Your task to perform on an android device: Open sound settings Image 0: 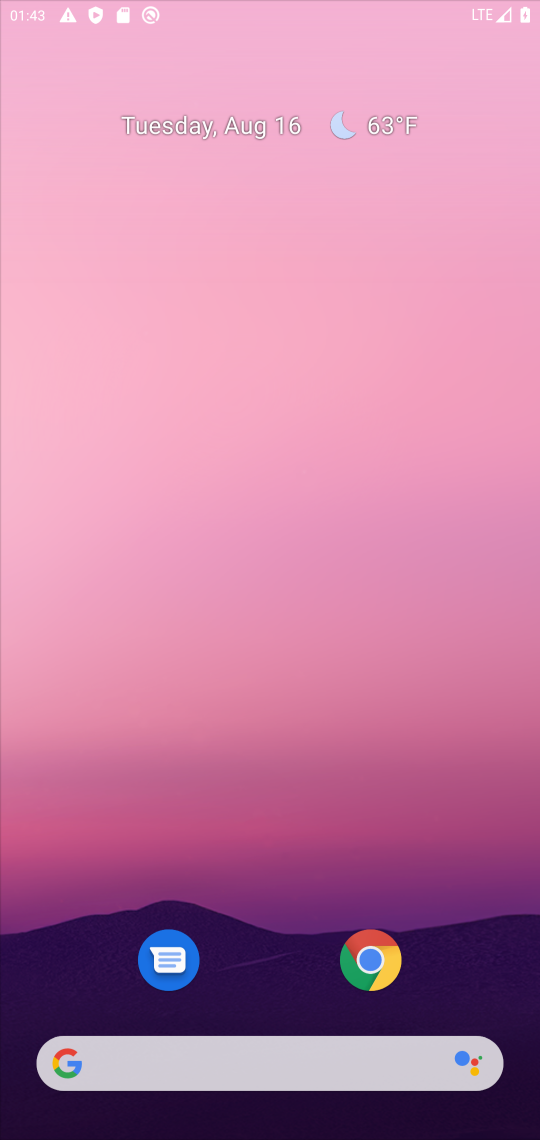
Step 0: press home button
Your task to perform on an android device: Open sound settings Image 1: 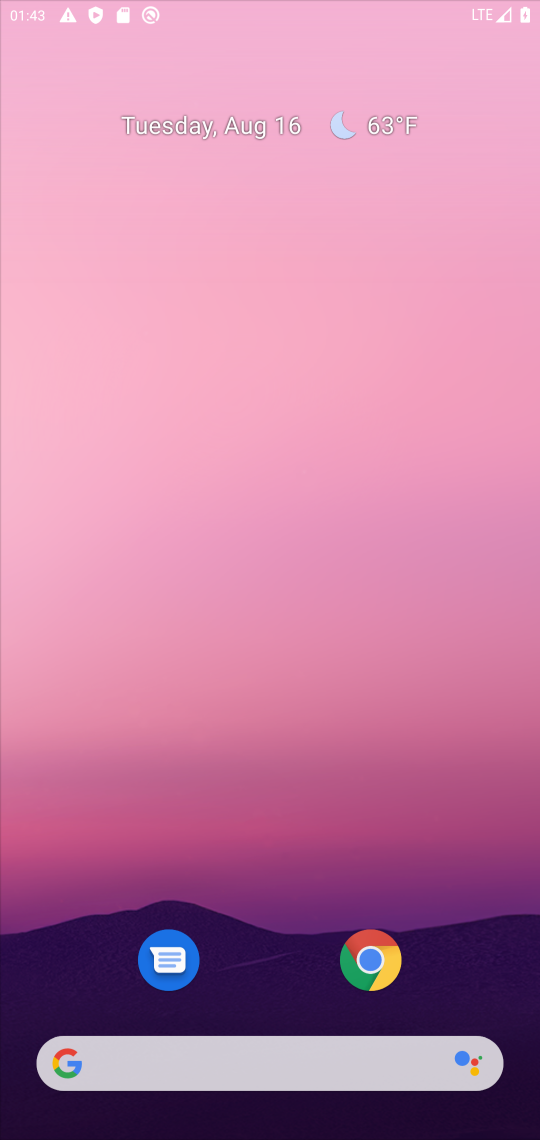
Step 1: click (327, 114)
Your task to perform on an android device: Open sound settings Image 2: 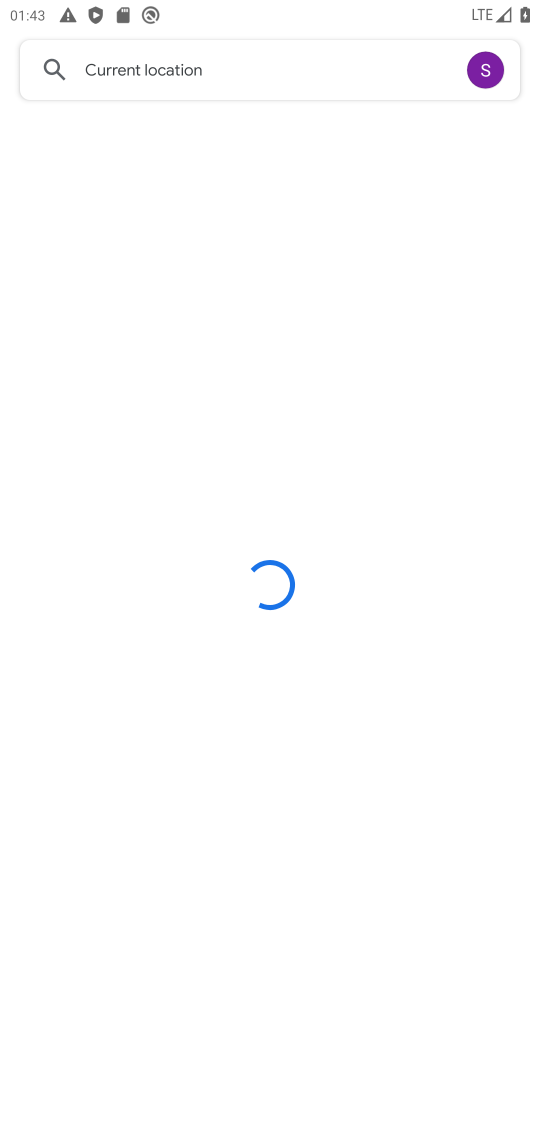
Step 2: press home button
Your task to perform on an android device: Open sound settings Image 3: 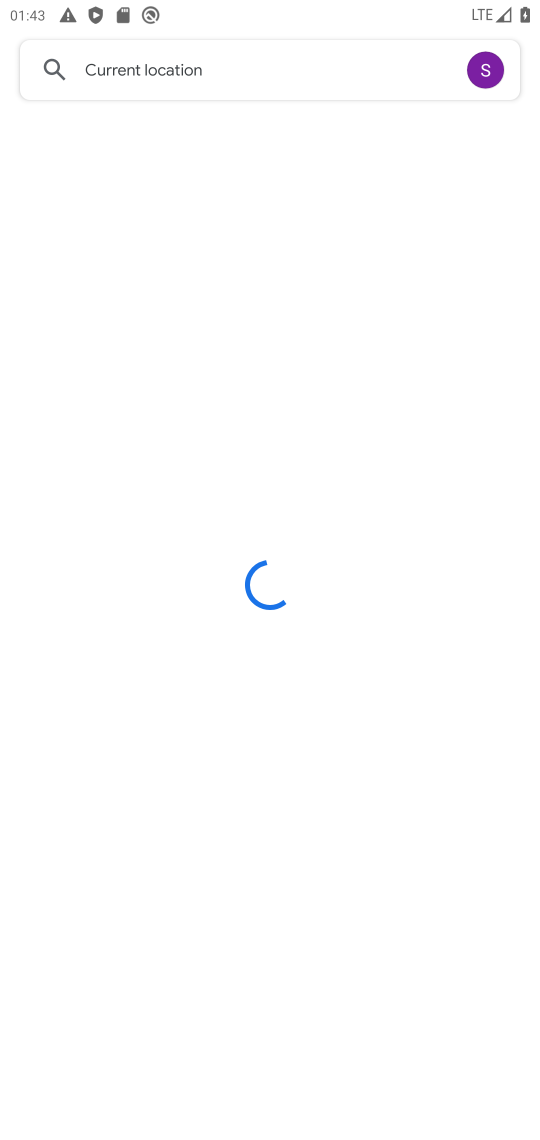
Step 3: press home button
Your task to perform on an android device: Open sound settings Image 4: 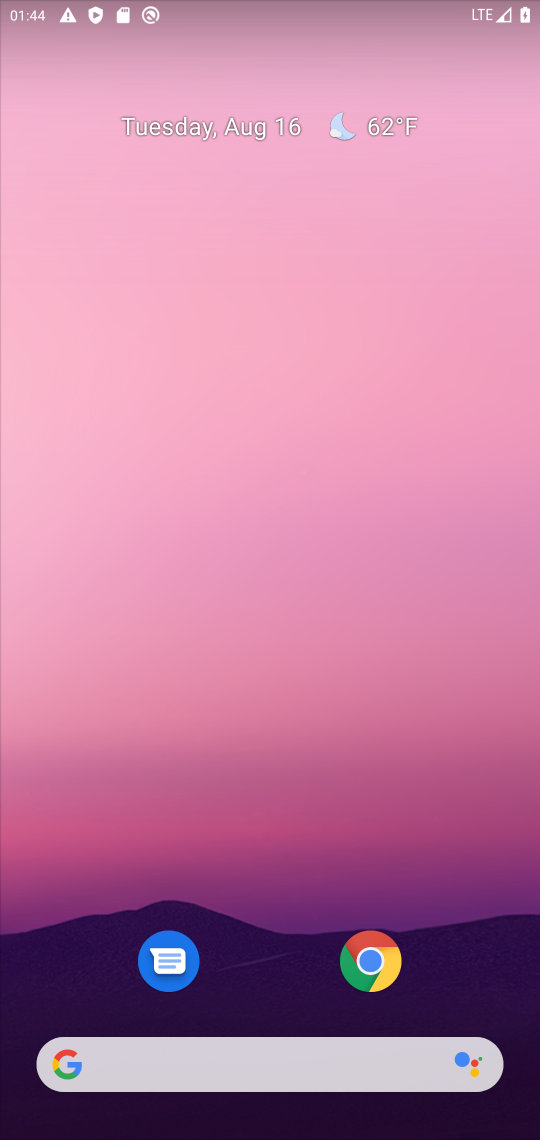
Step 4: drag from (250, 946) to (261, 141)
Your task to perform on an android device: Open sound settings Image 5: 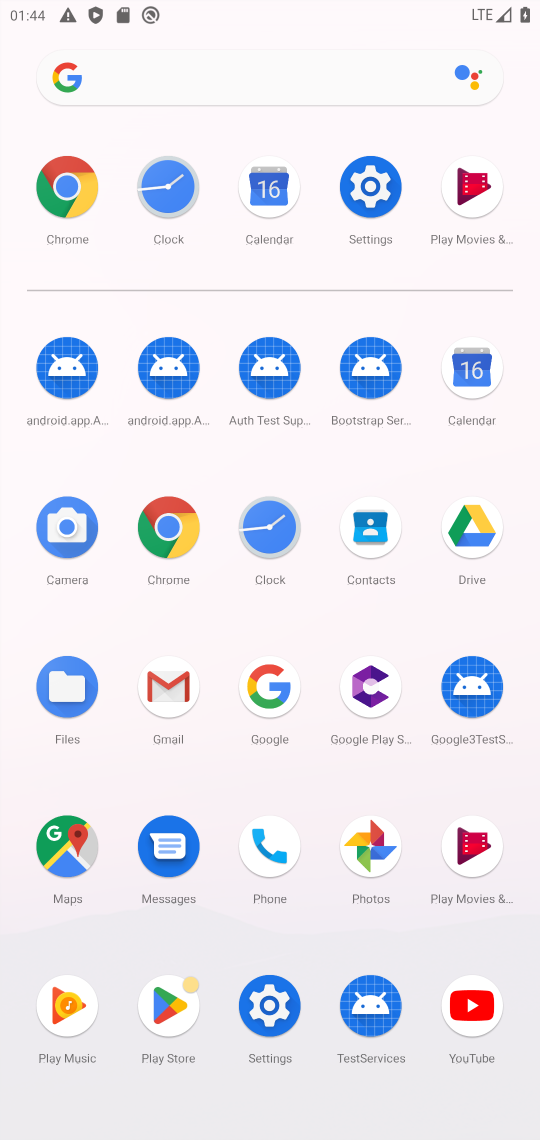
Step 5: click (245, 995)
Your task to perform on an android device: Open sound settings Image 6: 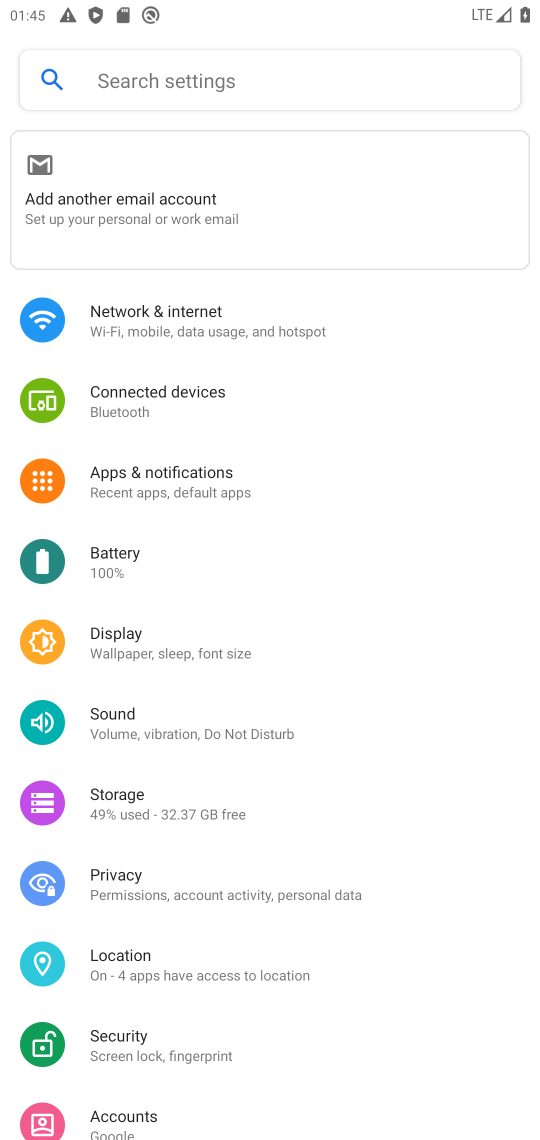
Step 6: click (140, 727)
Your task to perform on an android device: Open sound settings Image 7: 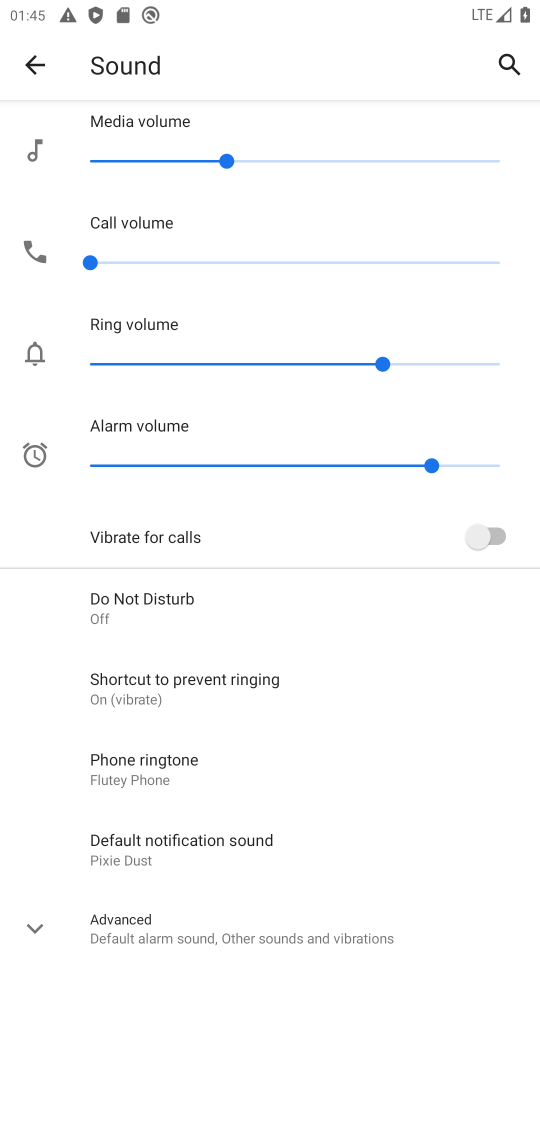
Step 7: task complete